Your task to perform on an android device: Go to wifi settings Image 0: 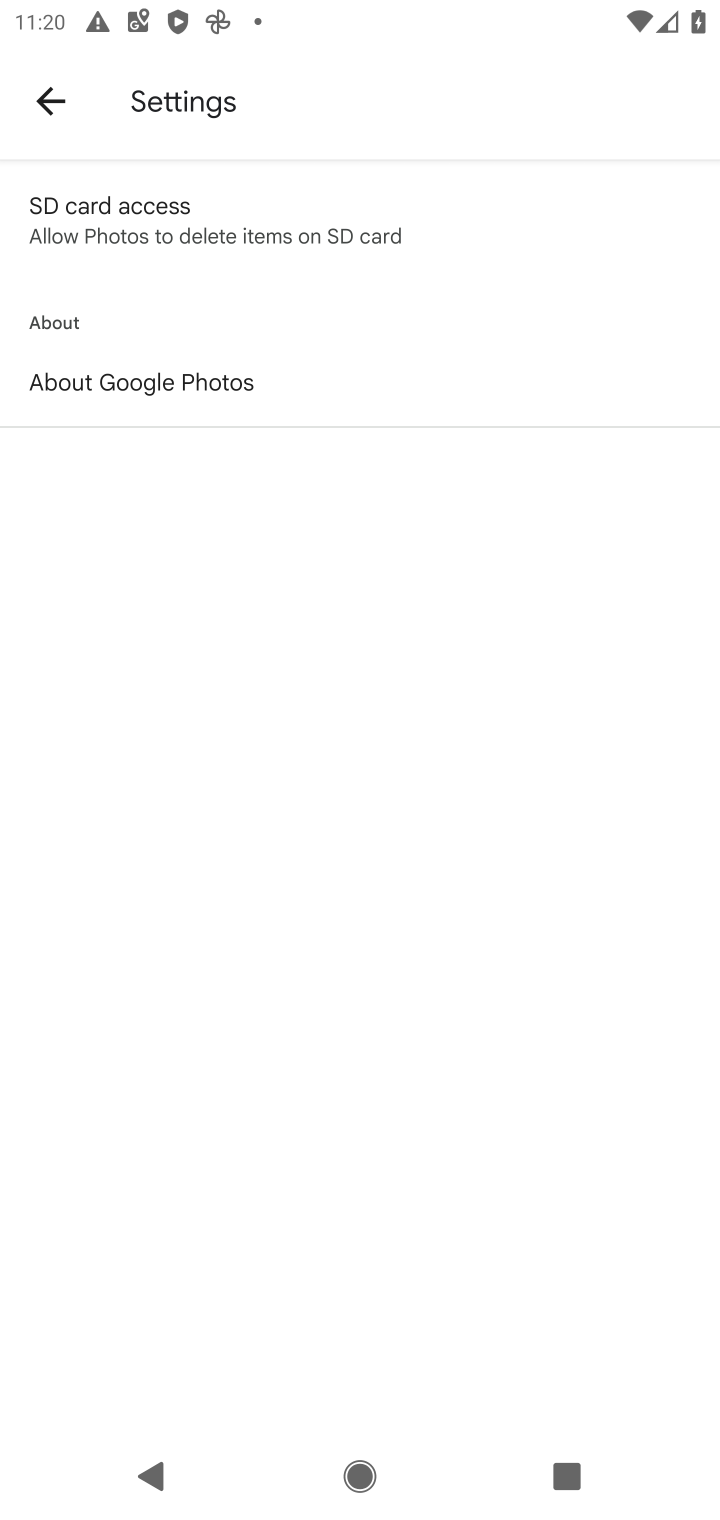
Step 0: press home button
Your task to perform on an android device: Go to wifi settings Image 1: 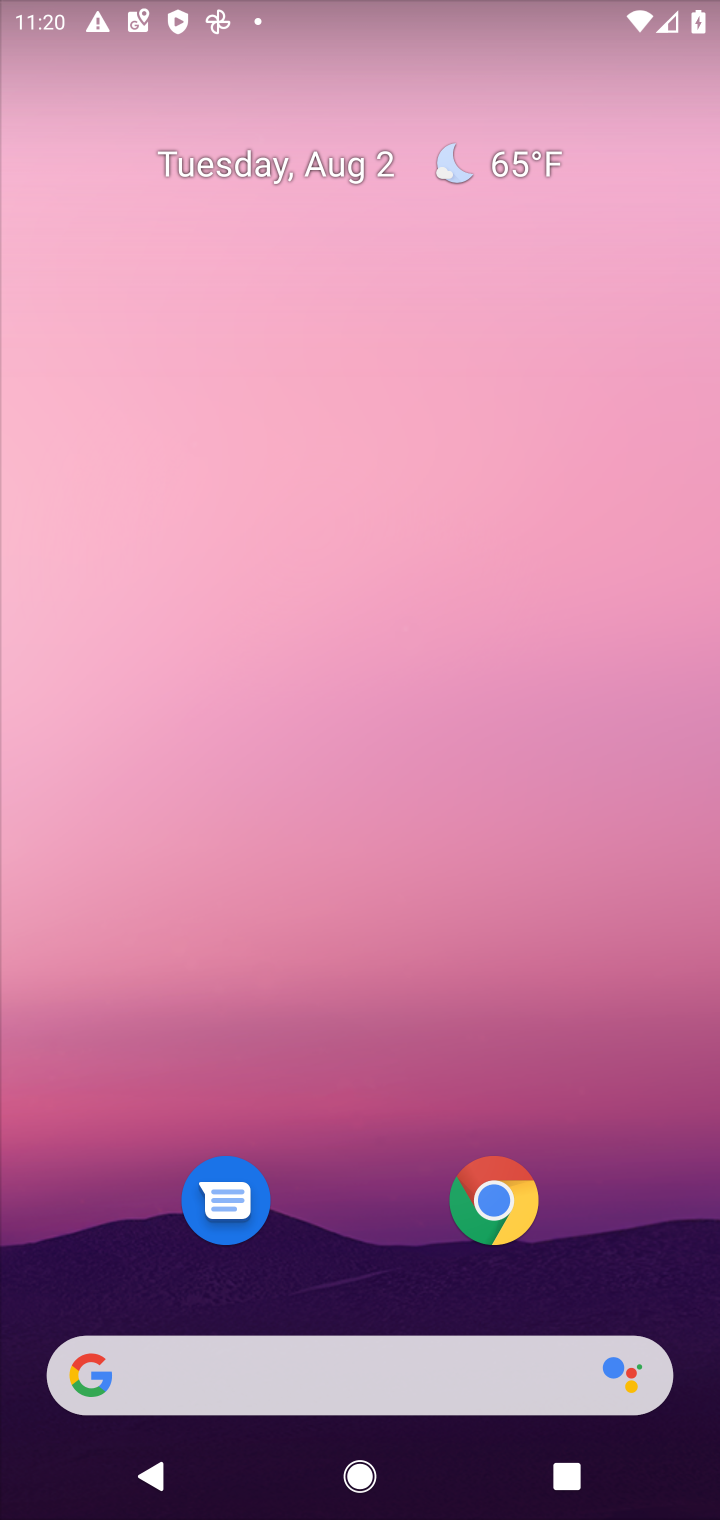
Step 1: drag from (656, 1301) to (555, 325)
Your task to perform on an android device: Go to wifi settings Image 2: 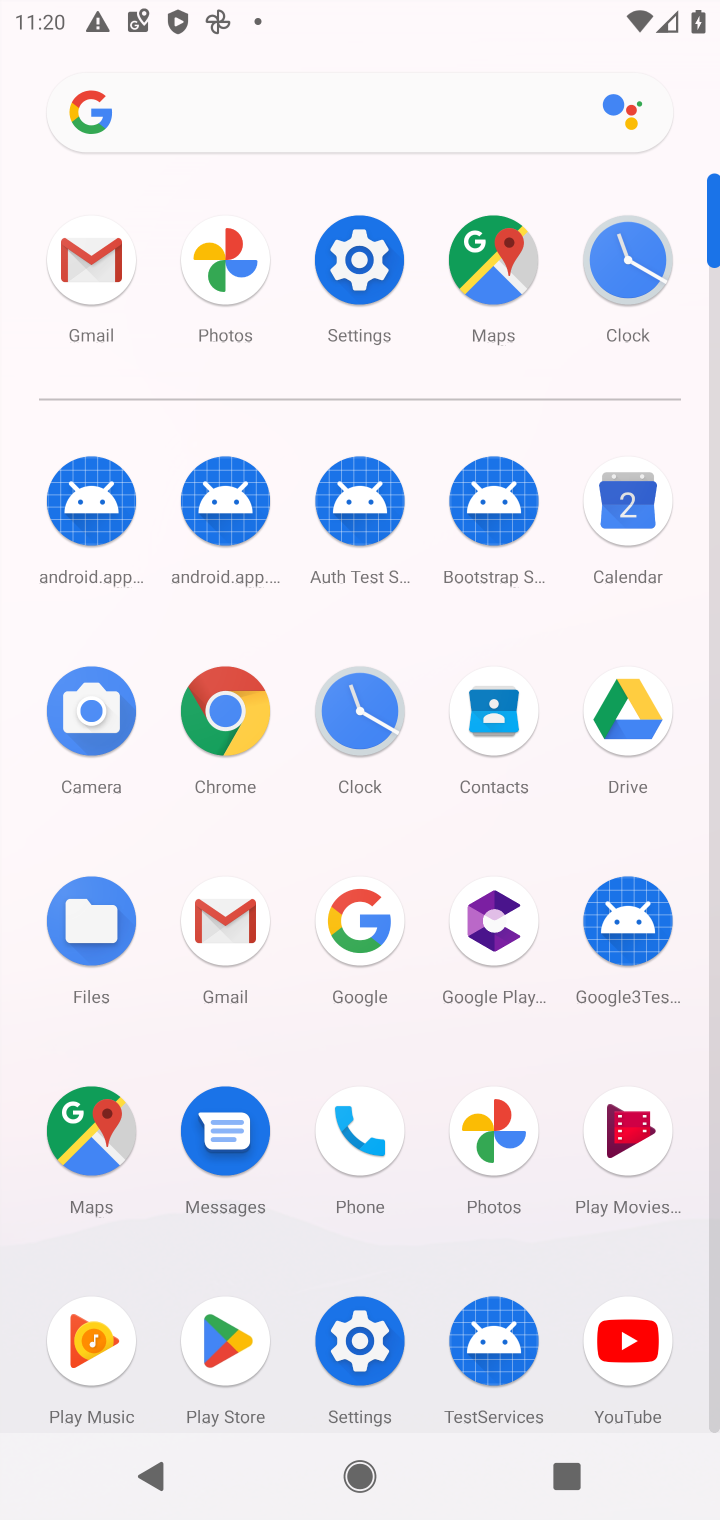
Step 2: click (361, 1342)
Your task to perform on an android device: Go to wifi settings Image 3: 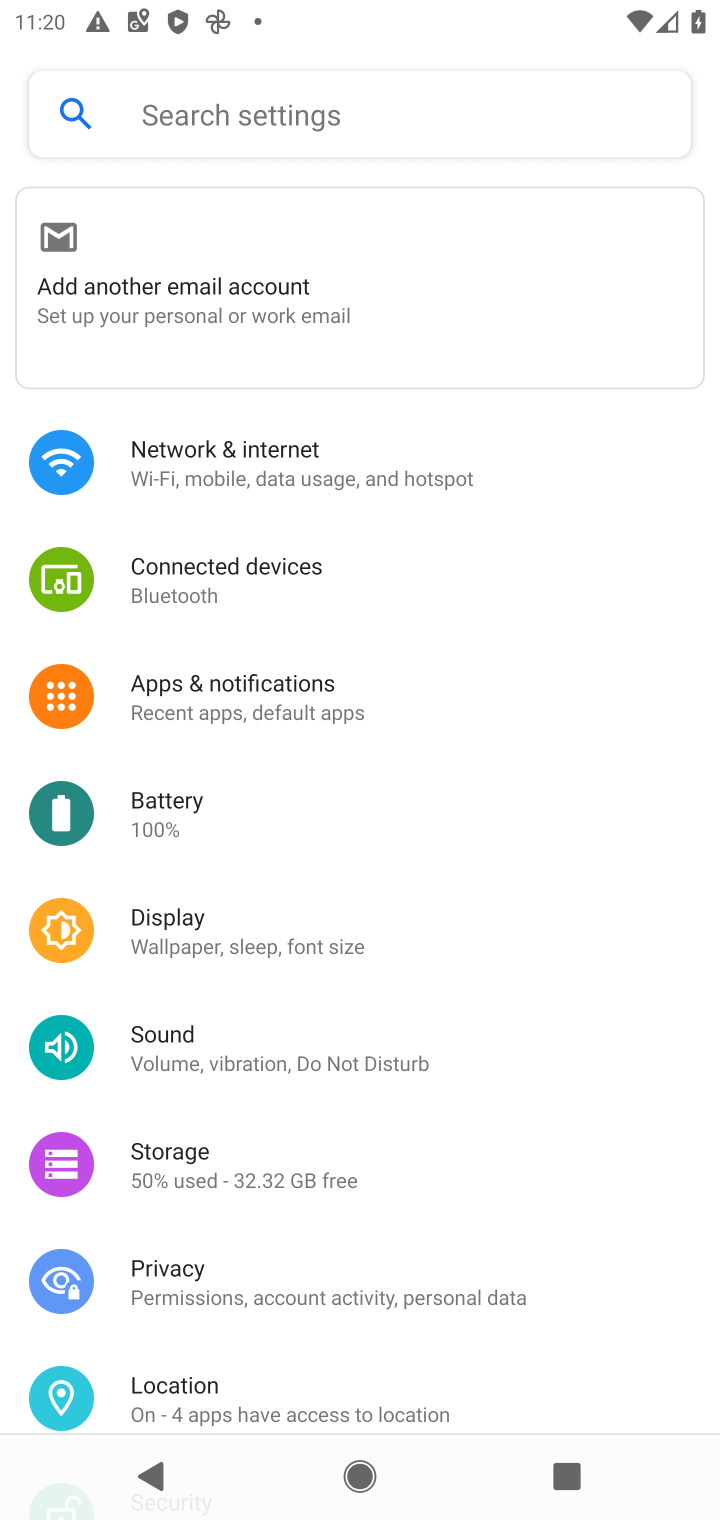
Step 3: click (218, 455)
Your task to perform on an android device: Go to wifi settings Image 4: 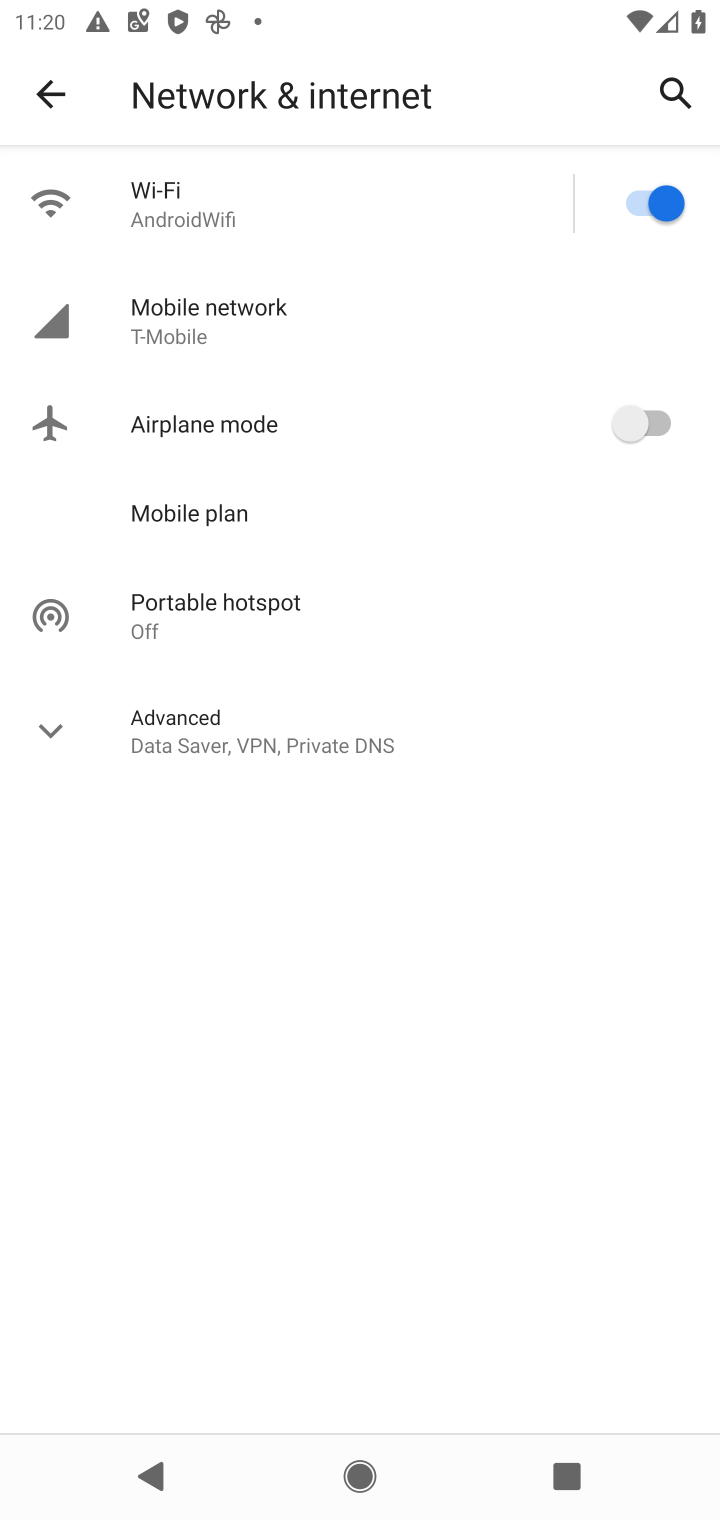
Step 4: click (161, 202)
Your task to perform on an android device: Go to wifi settings Image 5: 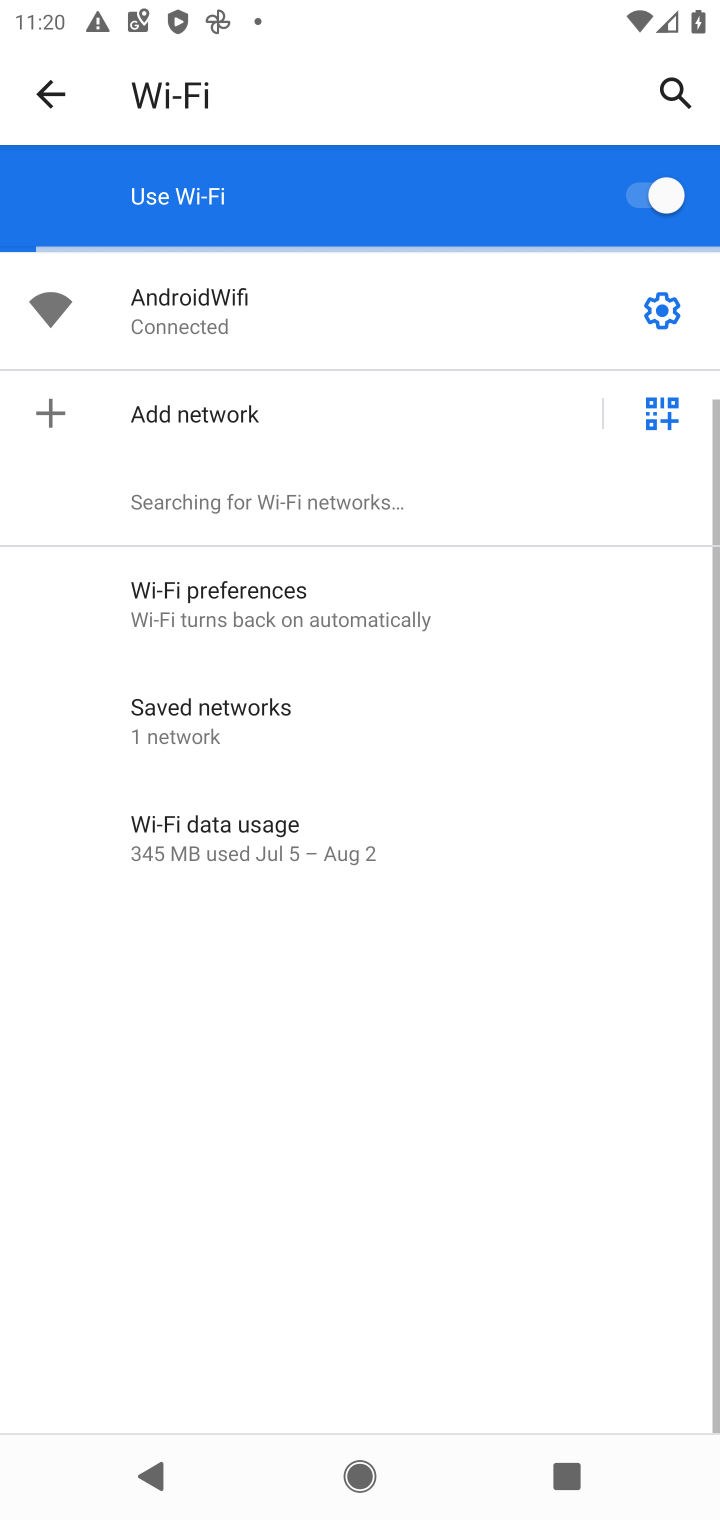
Step 5: click (666, 308)
Your task to perform on an android device: Go to wifi settings Image 6: 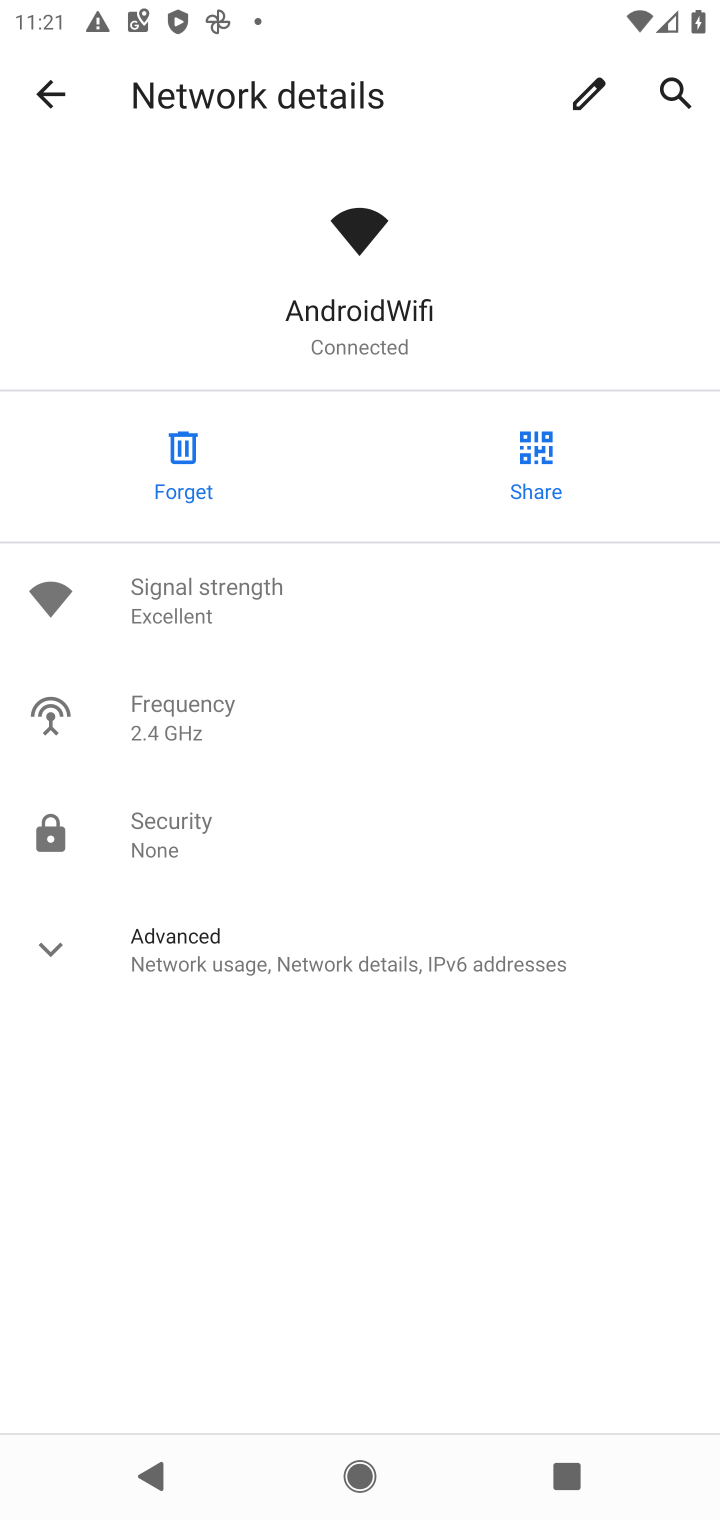
Step 6: task complete